Your task to perform on an android device: turn on showing notifications on the lock screen Image 0: 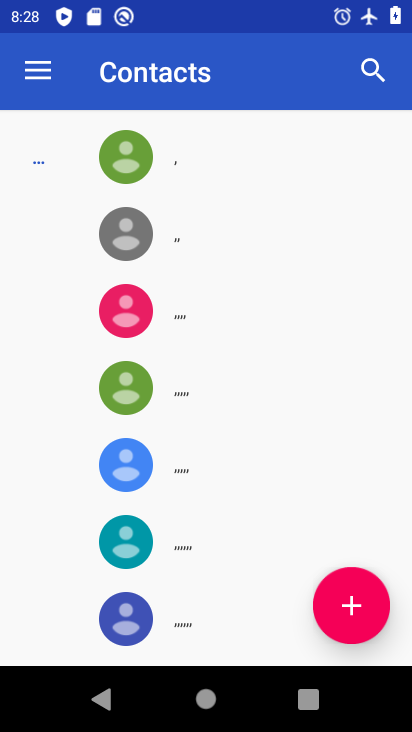
Step 0: press home button
Your task to perform on an android device: turn on showing notifications on the lock screen Image 1: 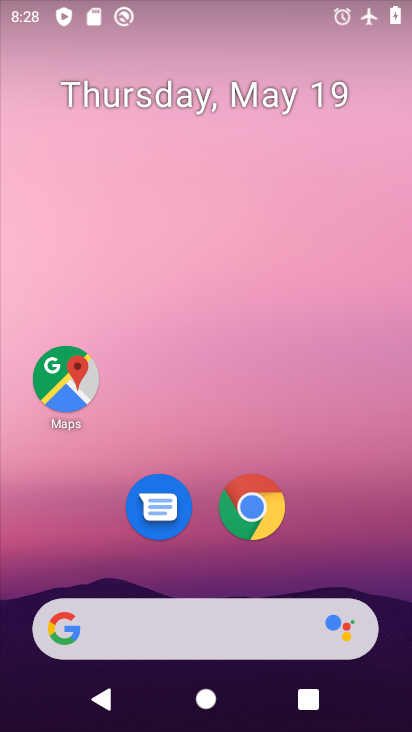
Step 1: drag from (221, 722) to (202, 156)
Your task to perform on an android device: turn on showing notifications on the lock screen Image 2: 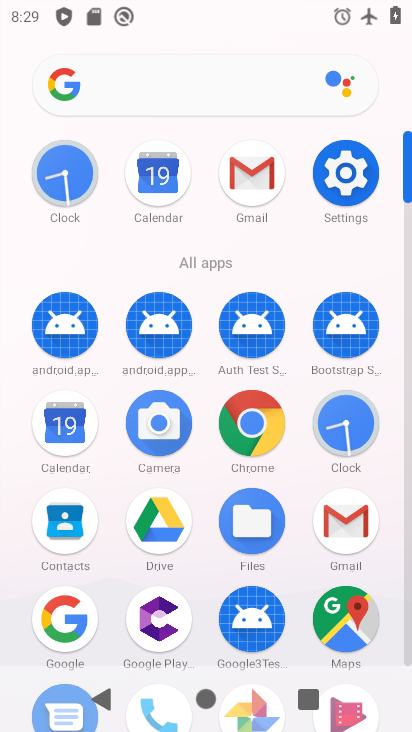
Step 2: click (336, 181)
Your task to perform on an android device: turn on showing notifications on the lock screen Image 3: 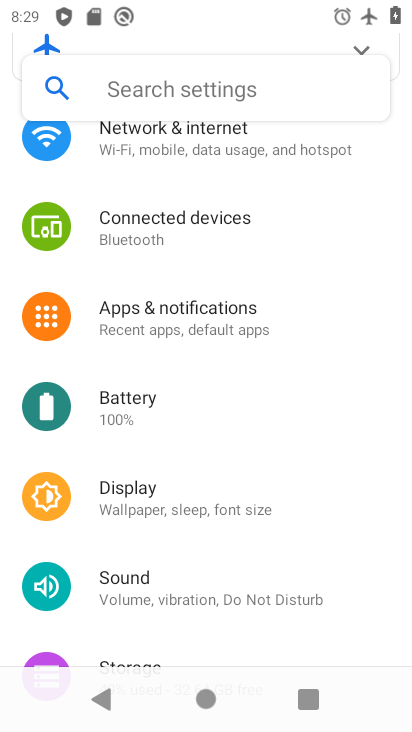
Step 3: click (196, 323)
Your task to perform on an android device: turn on showing notifications on the lock screen Image 4: 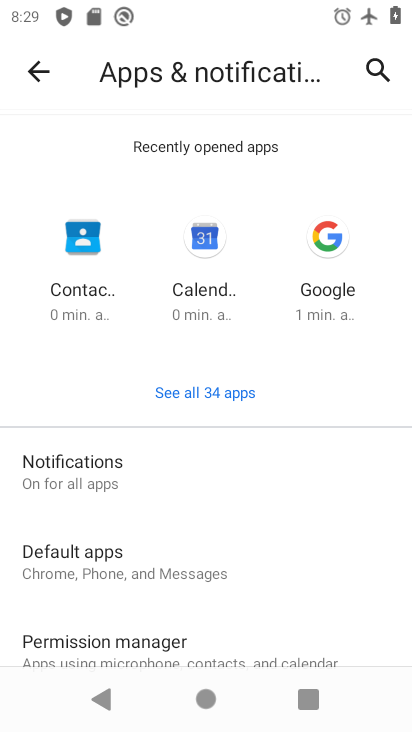
Step 4: click (78, 481)
Your task to perform on an android device: turn on showing notifications on the lock screen Image 5: 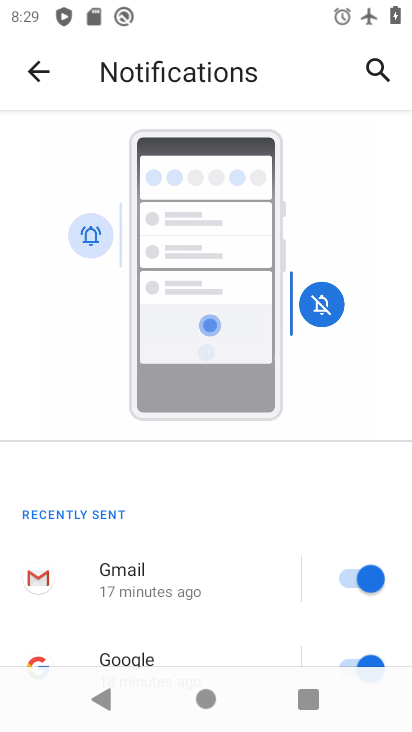
Step 5: drag from (247, 647) to (245, 274)
Your task to perform on an android device: turn on showing notifications on the lock screen Image 6: 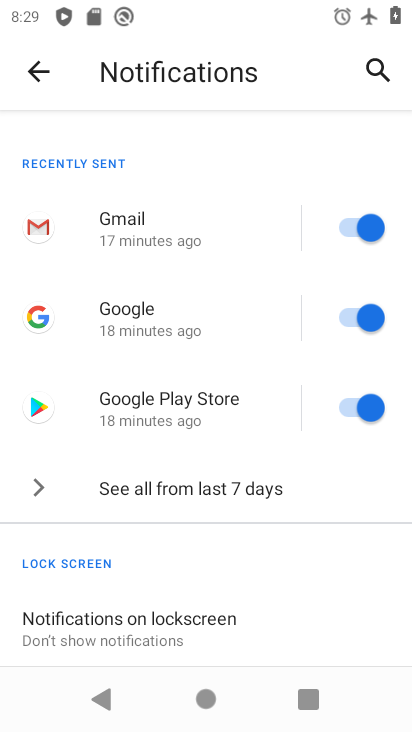
Step 6: drag from (202, 510) to (175, 287)
Your task to perform on an android device: turn on showing notifications on the lock screen Image 7: 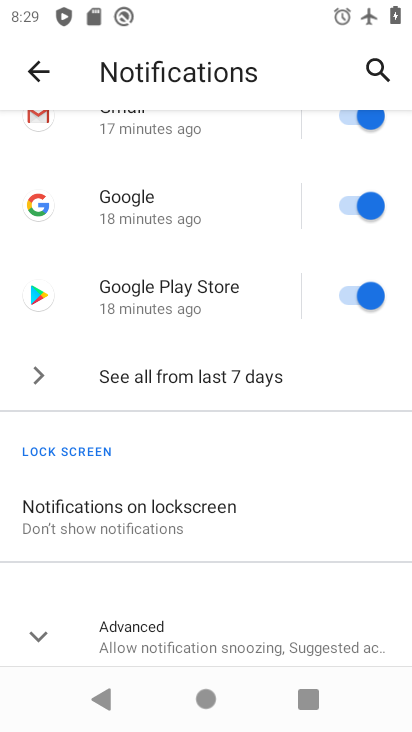
Step 7: click (93, 515)
Your task to perform on an android device: turn on showing notifications on the lock screen Image 8: 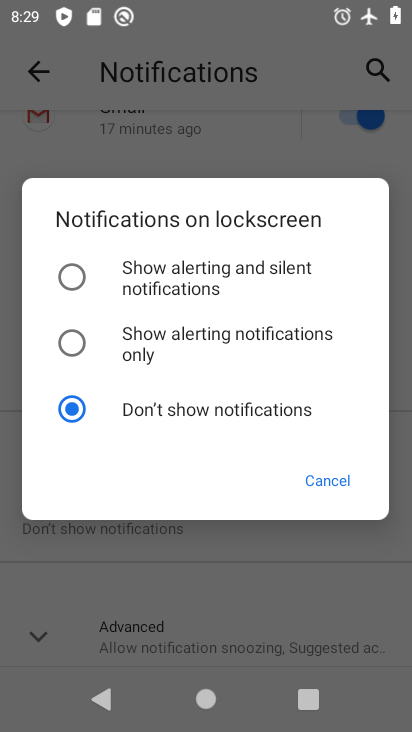
Step 8: click (75, 280)
Your task to perform on an android device: turn on showing notifications on the lock screen Image 9: 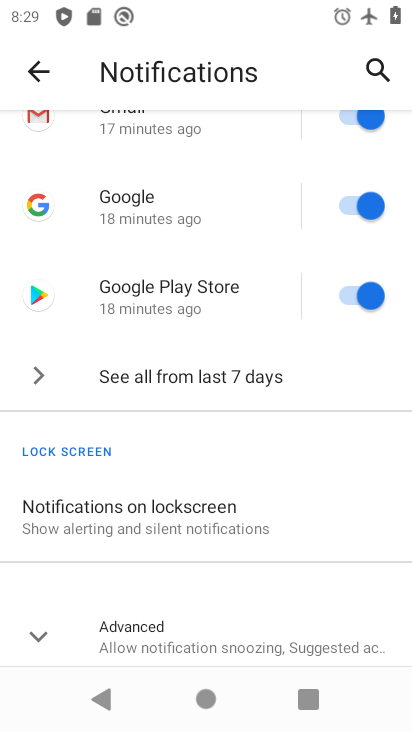
Step 9: task complete